Your task to perform on an android device: turn off data saver in the chrome app Image 0: 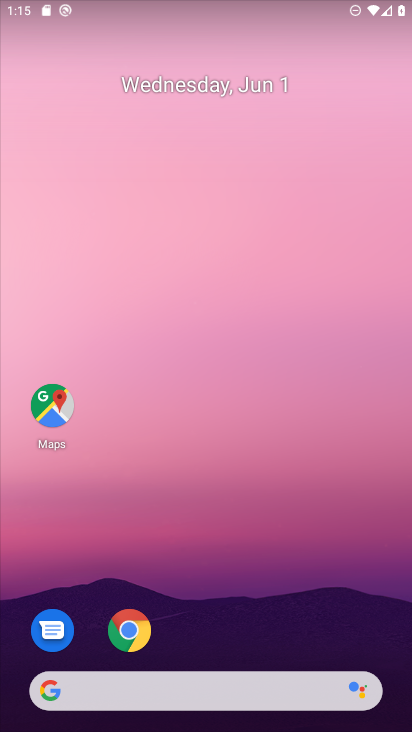
Step 0: drag from (293, 646) to (288, 316)
Your task to perform on an android device: turn off data saver in the chrome app Image 1: 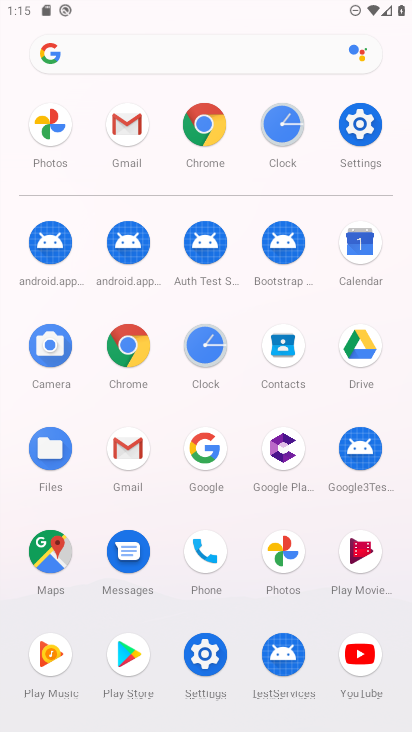
Step 1: click (201, 136)
Your task to perform on an android device: turn off data saver in the chrome app Image 2: 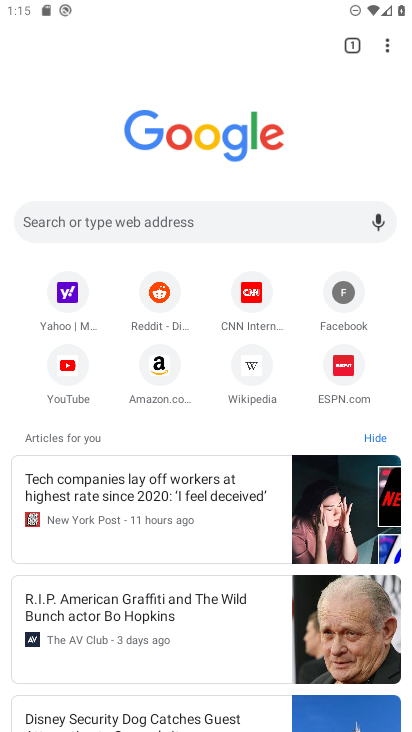
Step 2: drag from (390, 52) to (237, 379)
Your task to perform on an android device: turn off data saver in the chrome app Image 3: 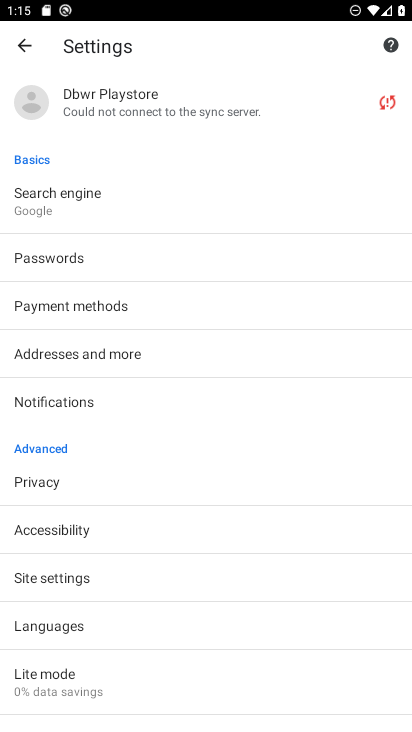
Step 3: click (50, 684)
Your task to perform on an android device: turn off data saver in the chrome app Image 4: 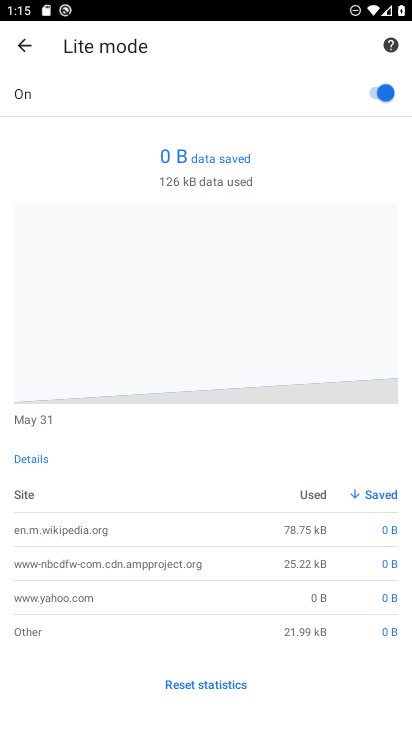
Step 4: click (384, 90)
Your task to perform on an android device: turn off data saver in the chrome app Image 5: 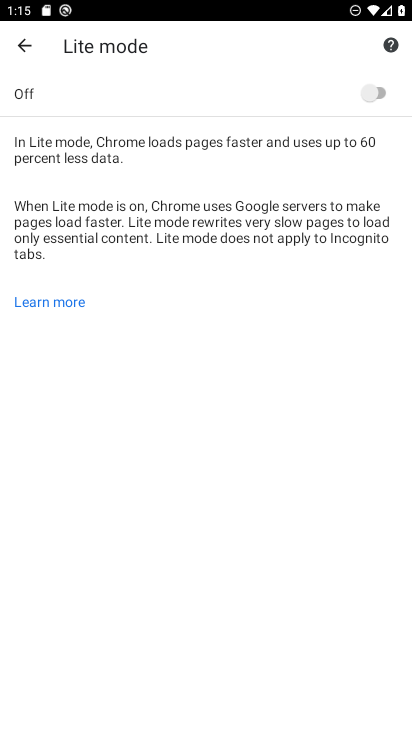
Step 5: task complete